Your task to perform on an android device: check android version Image 0: 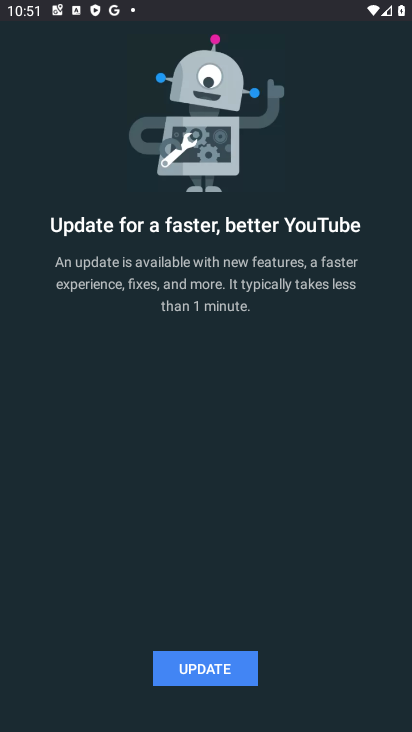
Step 0: drag from (302, 602) to (258, 113)
Your task to perform on an android device: check android version Image 1: 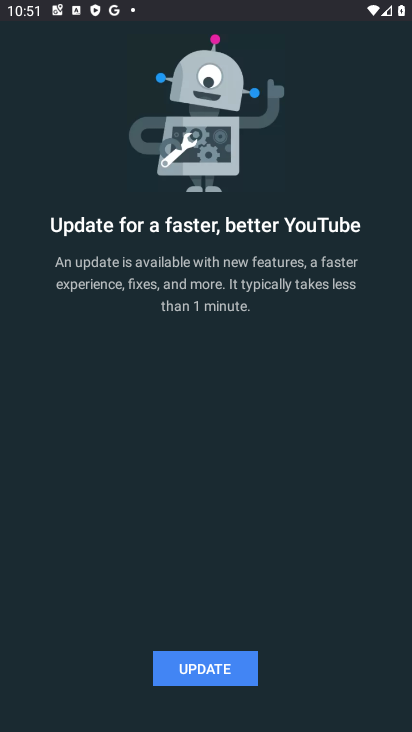
Step 1: press home button
Your task to perform on an android device: check android version Image 2: 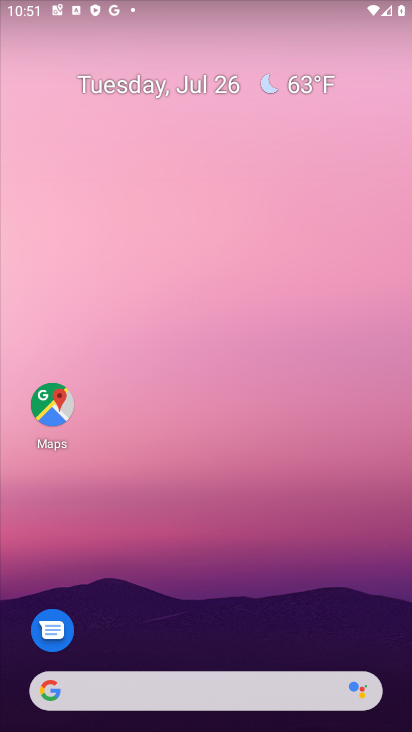
Step 2: drag from (238, 638) to (195, 32)
Your task to perform on an android device: check android version Image 3: 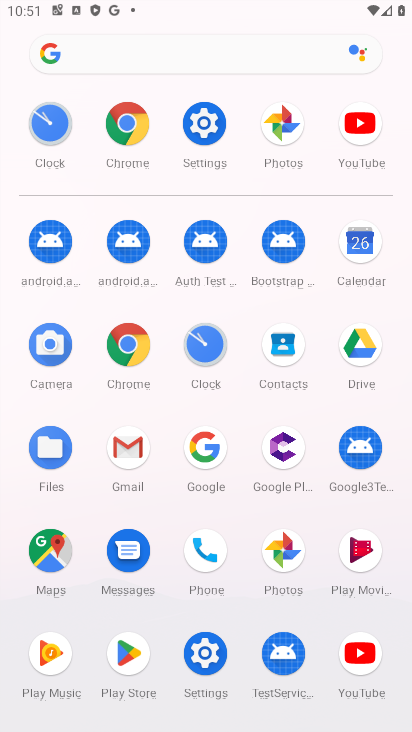
Step 3: click (203, 664)
Your task to perform on an android device: check android version Image 4: 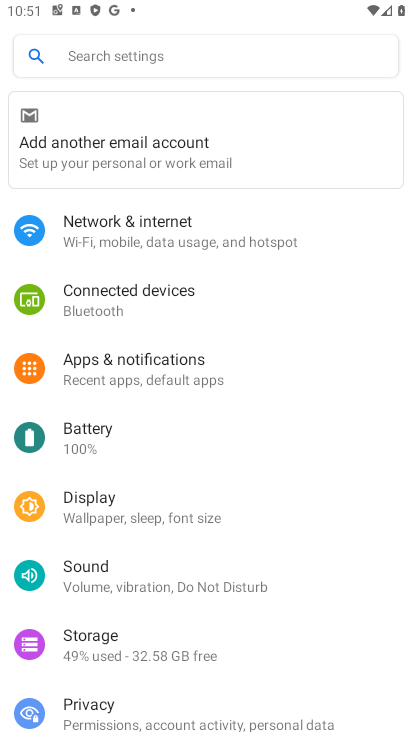
Step 4: drag from (139, 592) to (81, 194)
Your task to perform on an android device: check android version Image 5: 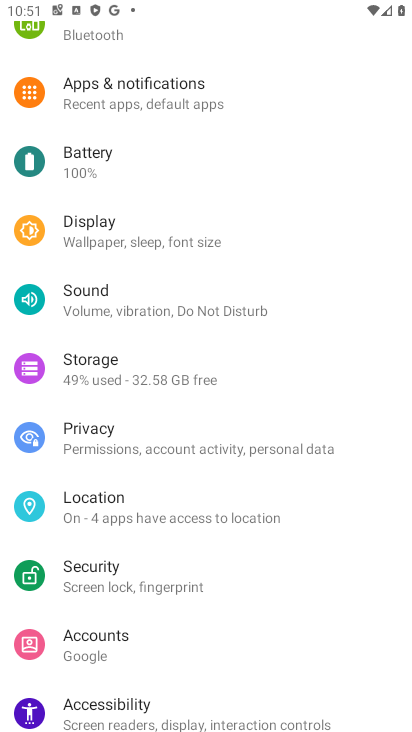
Step 5: drag from (179, 668) to (164, 156)
Your task to perform on an android device: check android version Image 6: 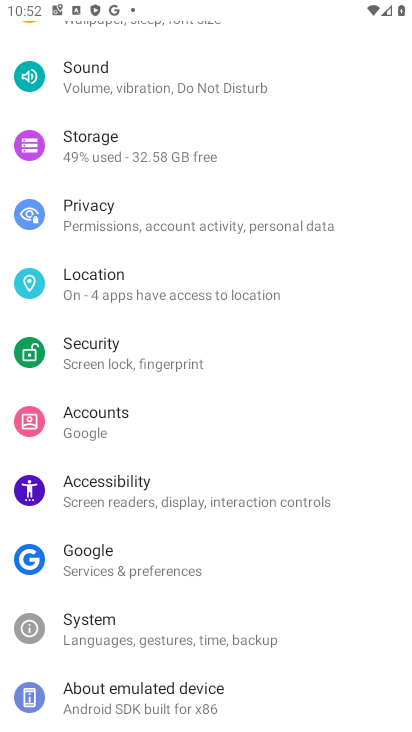
Step 6: click (114, 700)
Your task to perform on an android device: check android version Image 7: 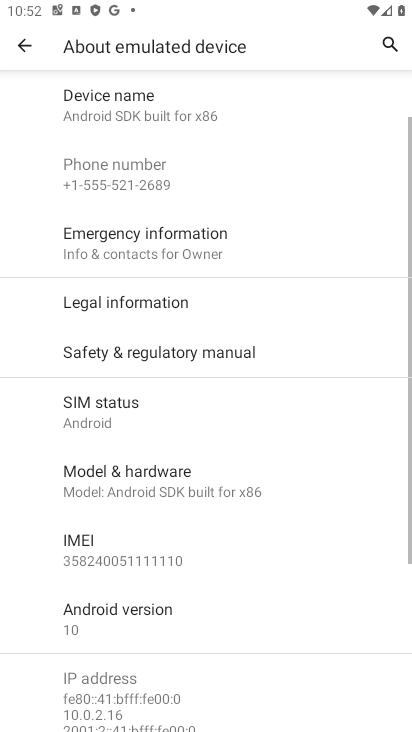
Step 7: drag from (114, 700) to (123, 348)
Your task to perform on an android device: check android version Image 8: 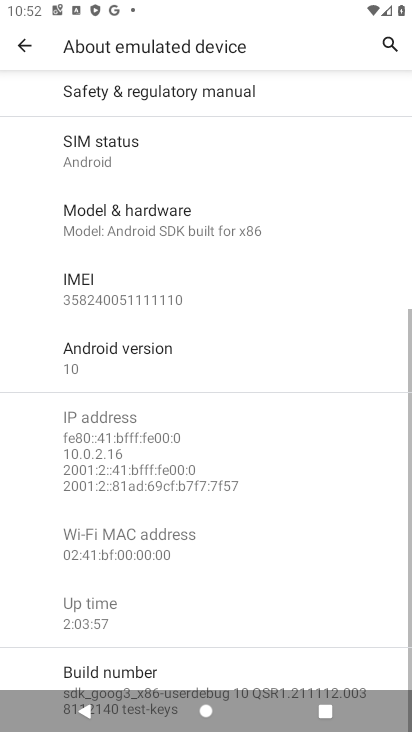
Step 8: click (96, 373)
Your task to perform on an android device: check android version Image 9: 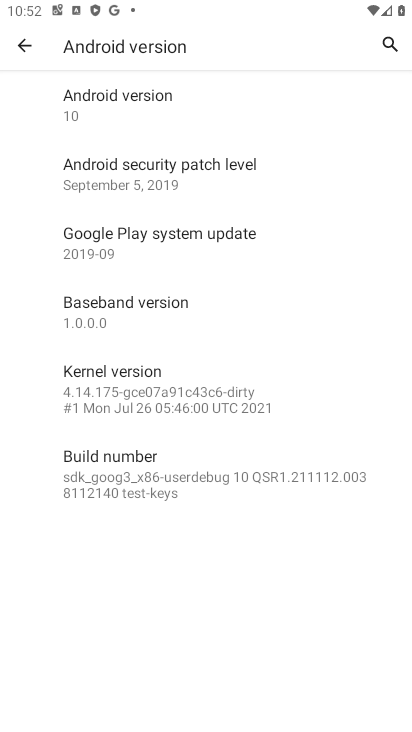
Step 9: task complete